Your task to perform on an android device: Go to ESPN.com Image 0: 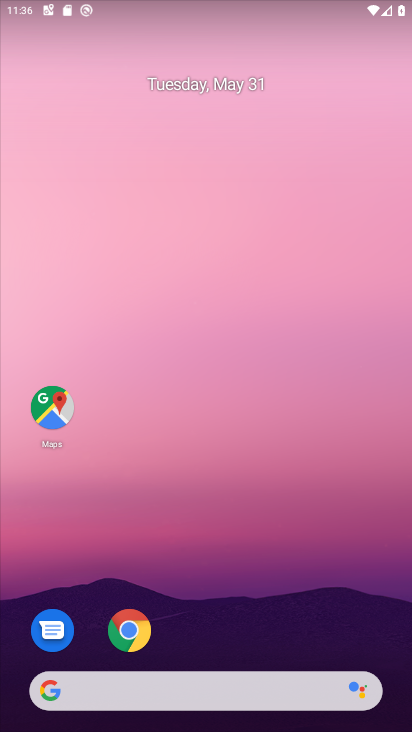
Step 0: click (128, 617)
Your task to perform on an android device: Go to ESPN.com Image 1: 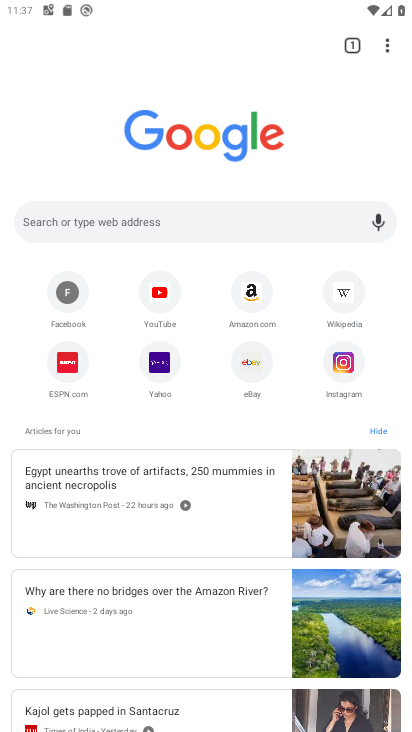
Step 1: click (75, 363)
Your task to perform on an android device: Go to ESPN.com Image 2: 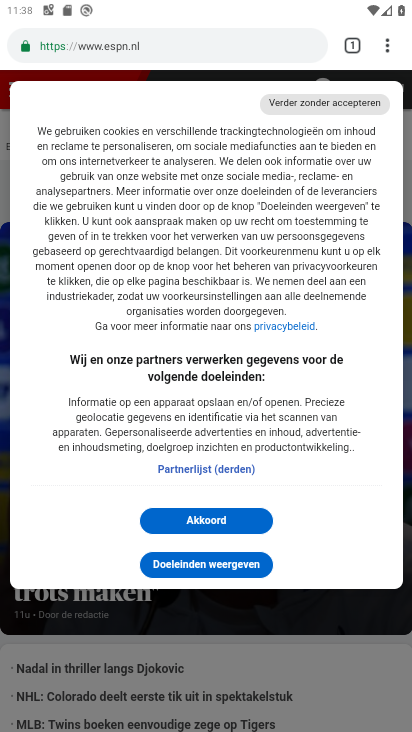
Step 2: task complete